Your task to perform on an android device: Go to network settings Image 0: 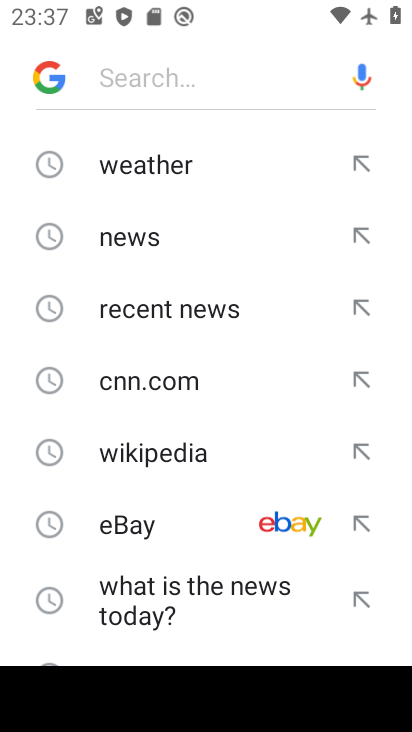
Step 0: press home button
Your task to perform on an android device: Go to network settings Image 1: 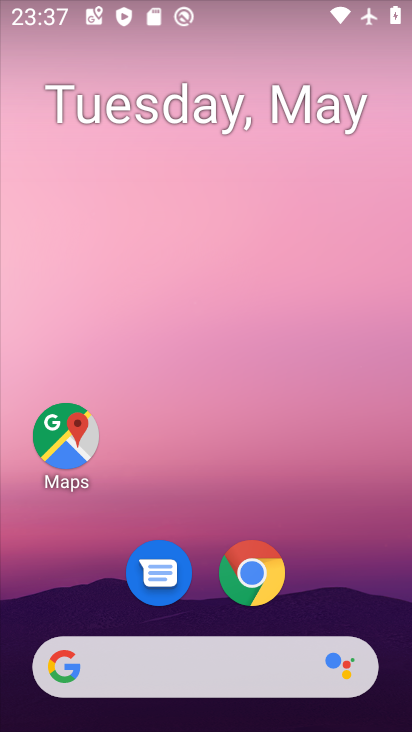
Step 1: drag from (174, 484) to (275, 94)
Your task to perform on an android device: Go to network settings Image 2: 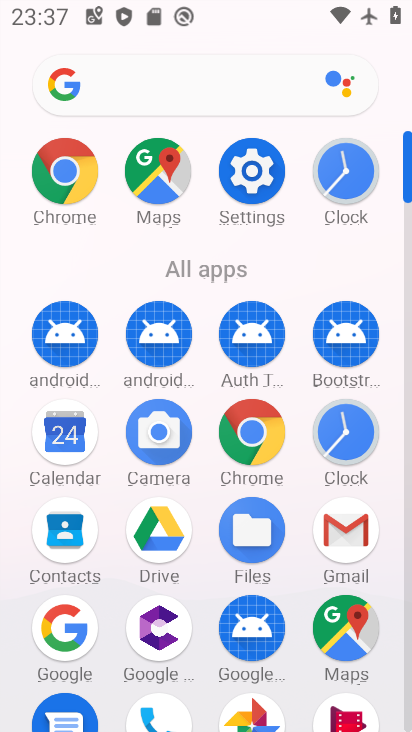
Step 2: click (239, 179)
Your task to perform on an android device: Go to network settings Image 3: 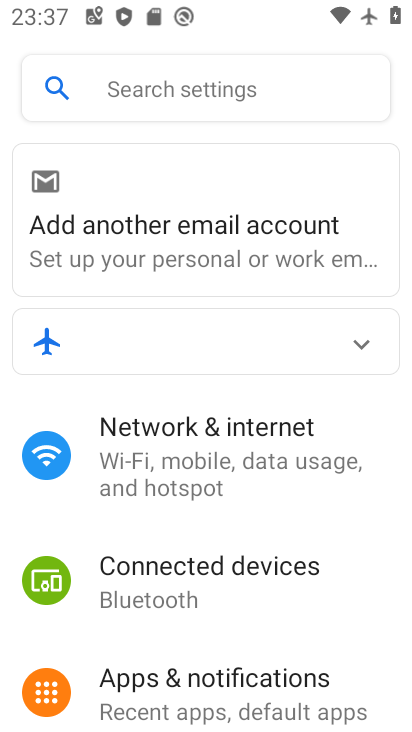
Step 3: click (213, 456)
Your task to perform on an android device: Go to network settings Image 4: 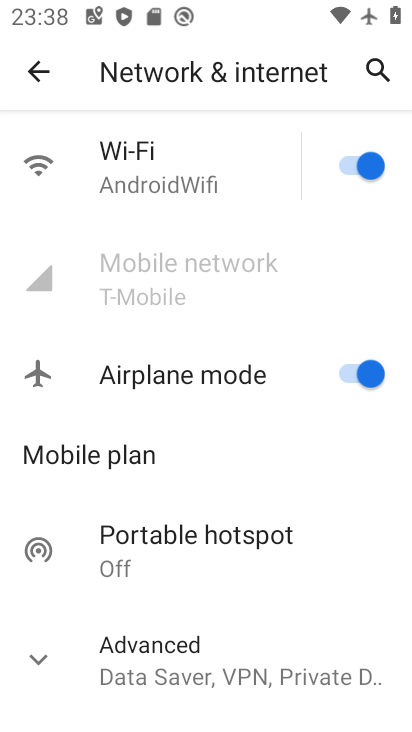
Step 4: task complete